Your task to perform on an android device: Go to Google Image 0: 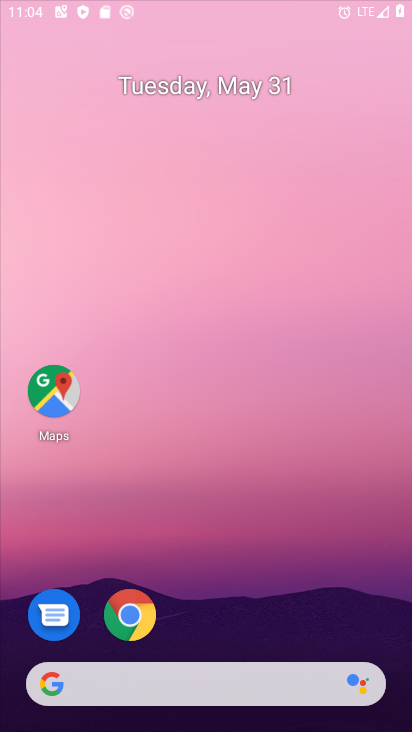
Step 0: drag from (275, 15) to (364, 39)
Your task to perform on an android device: Go to Google Image 1: 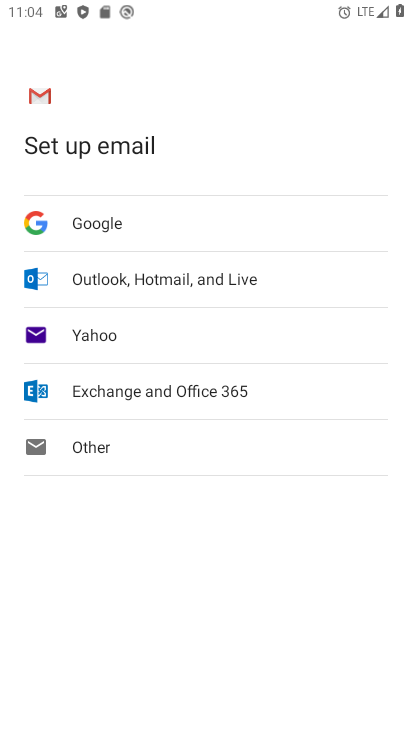
Step 1: press home button
Your task to perform on an android device: Go to Google Image 2: 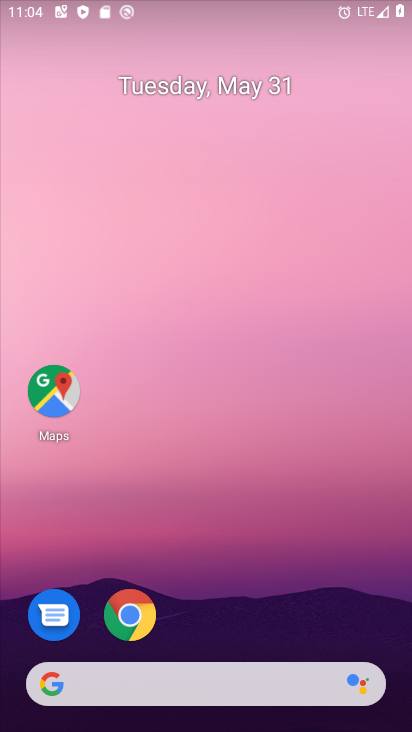
Step 2: drag from (328, 564) to (356, 41)
Your task to perform on an android device: Go to Google Image 3: 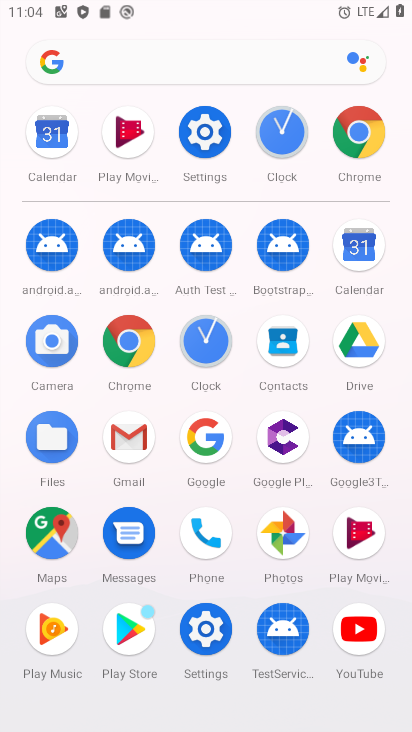
Step 3: click (199, 429)
Your task to perform on an android device: Go to Google Image 4: 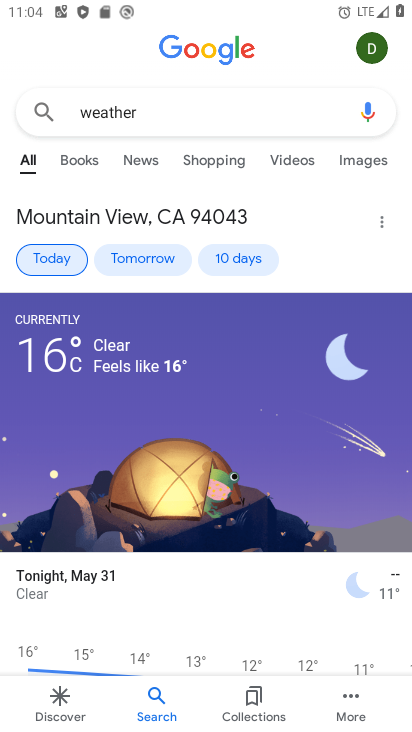
Step 4: task complete